Your task to perform on an android device: Open network settings Image 0: 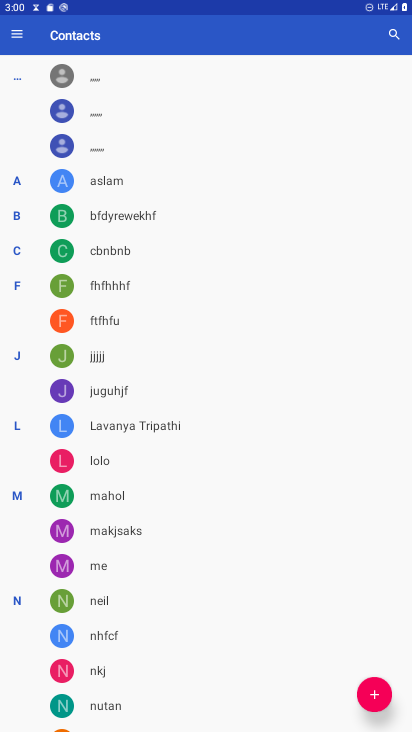
Step 0: press home button
Your task to perform on an android device: Open network settings Image 1: 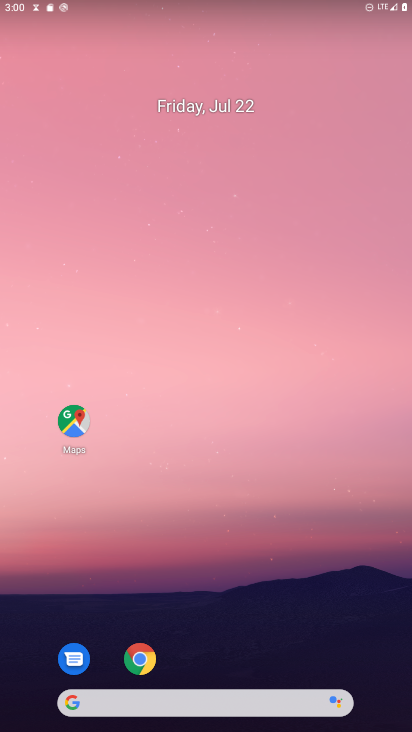
Step 1: drag from (299, 526) to (333, 111)
Your task to perform on an android device: Open network settings Image 2: 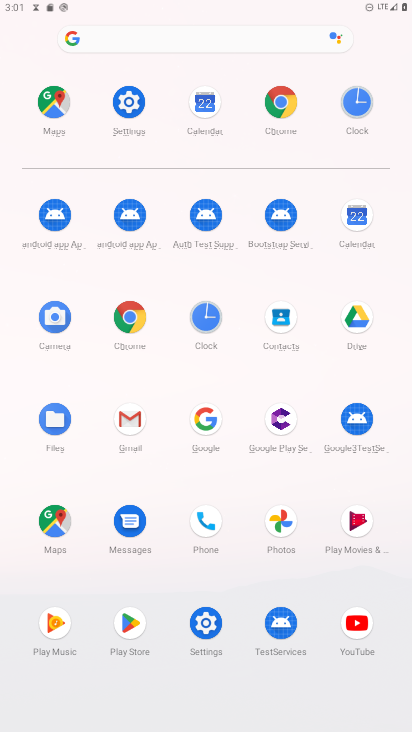
Step 2: click (142, 103)
Your task to perform on an android device: Open network settings Image 3: 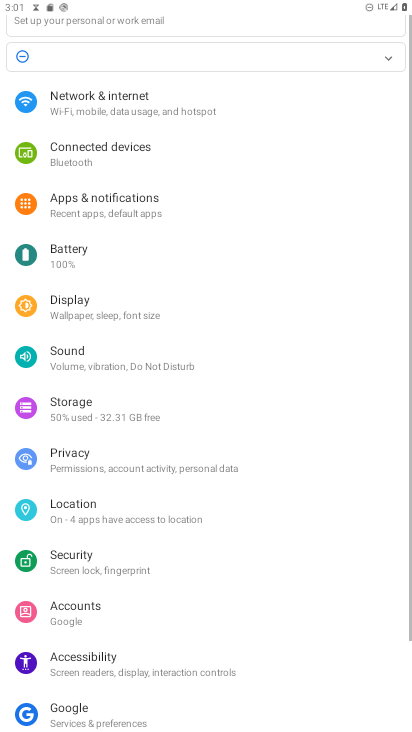
Step 3: drag from (158, 201) to (171, 669)
Your task to perform on an android device: Open network settings Image 4: 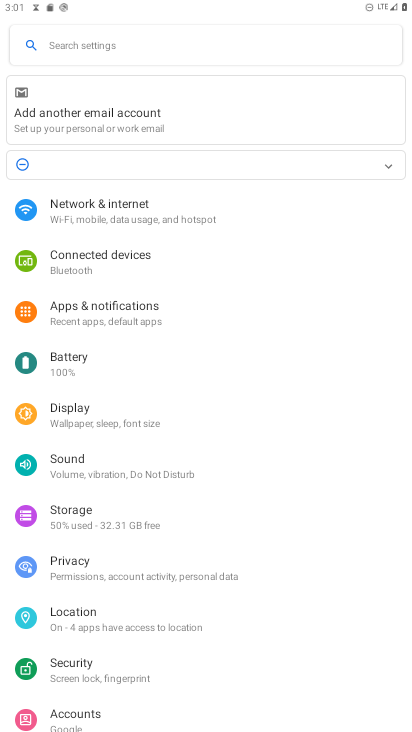
Step 4: click (128, 206)
Your task to perform on an android device: Open network settings Image 5: 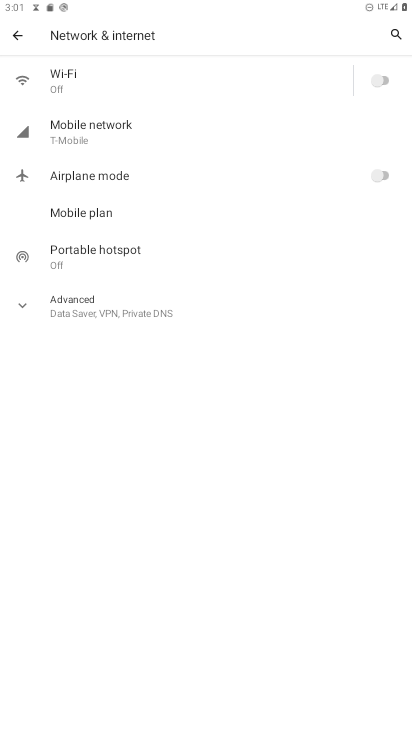
Step 5: task complete